Your task to perform on an android device: Open notification settings Image 0: 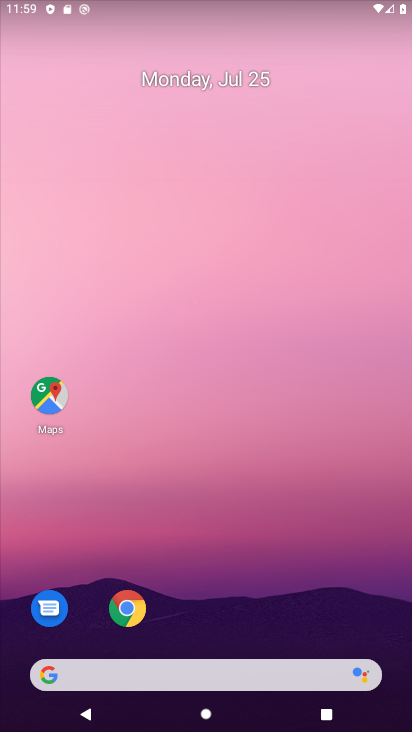
Step 0: drag from (251, 625) to (282, 186)
Your task to perform on an android device: Open notification settings Image 1: 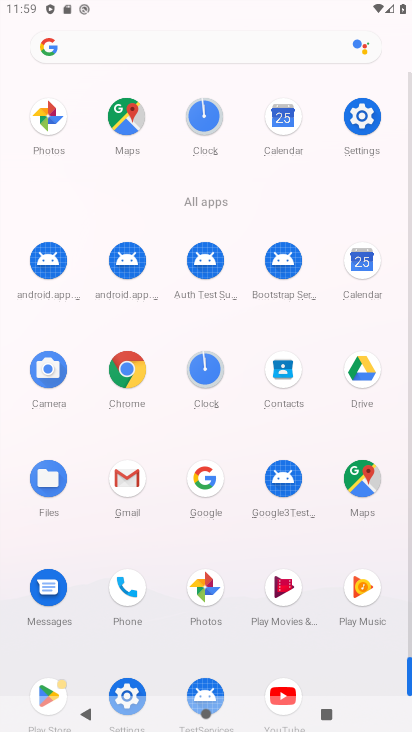
Step 1: click (134, 681)
Your task to perform on an android device: Open notification settings Image 2: 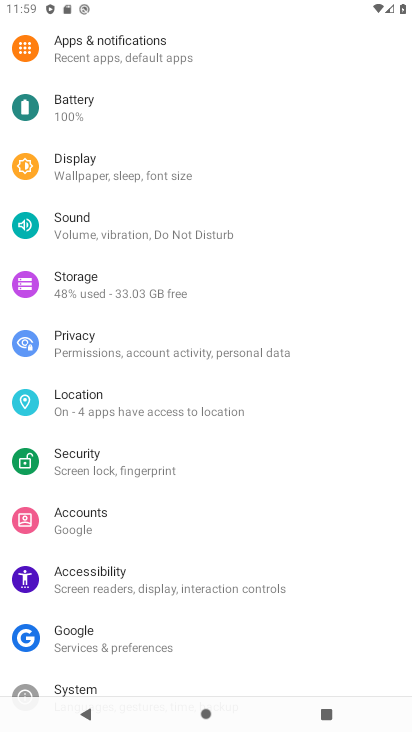
Step 2: click (148, 58)
Your task to perform on an android device: Open notification settings Image 3: 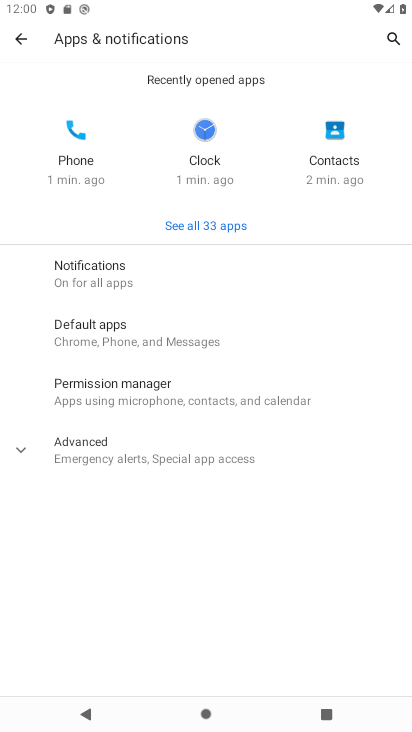
Step 3: click (107, 270)
Your task to perform on an android device: Open notification settings Image 4: 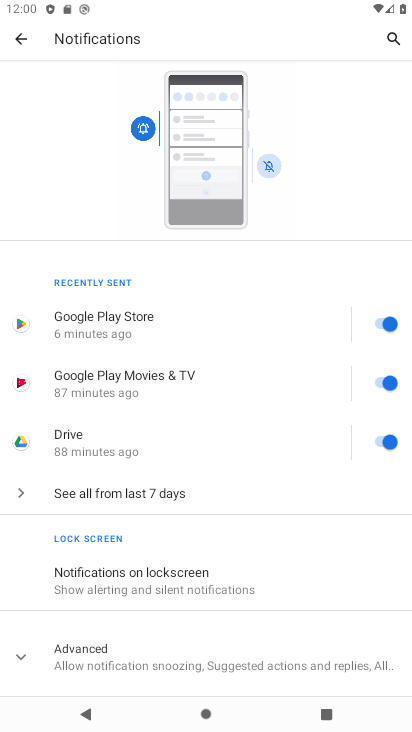
Step 4: click (87, 267)
Your task to perform on an android device: Open notification settings Image 5: 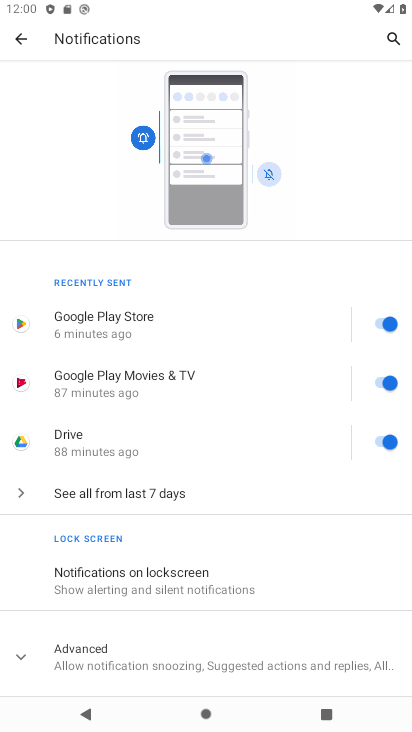
Step 5: drag from (87, 540) to (131, 348)
Your task to perform on an android device: Open notification settings Image 6: 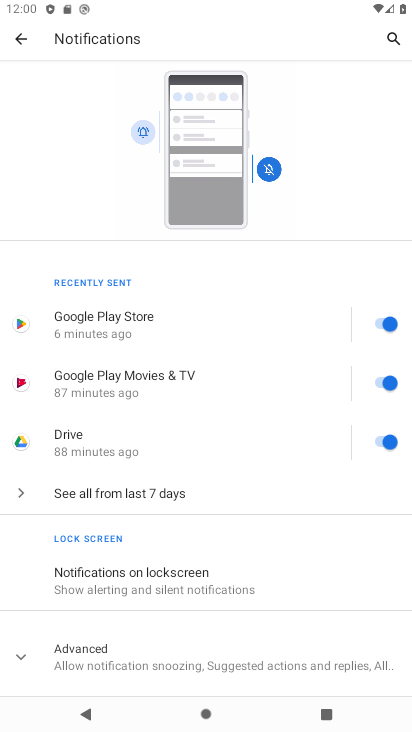
Step 6: click (122, 491)
Your task to perform on an android device: Open notification settings Image 7: 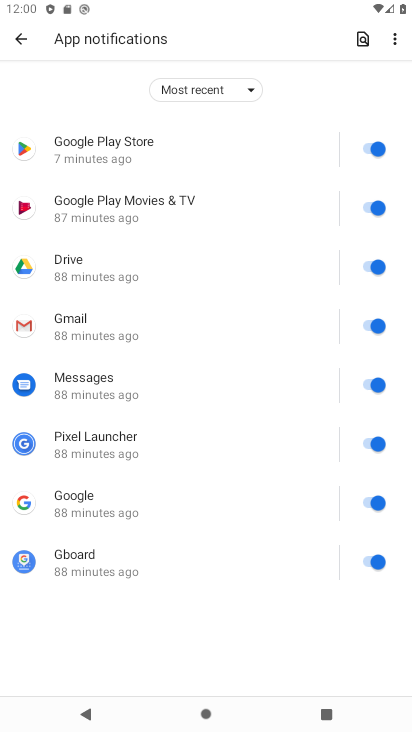
Step 7: click (356, 145)
Your task to perform on an android device: Open notification settings Image 8: 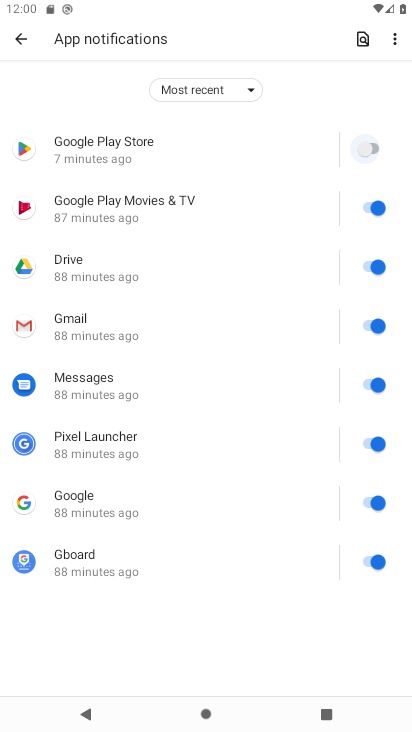
Step 8: click (352, 205)
Your task to perform on an android device: Open notification settings Image 9: 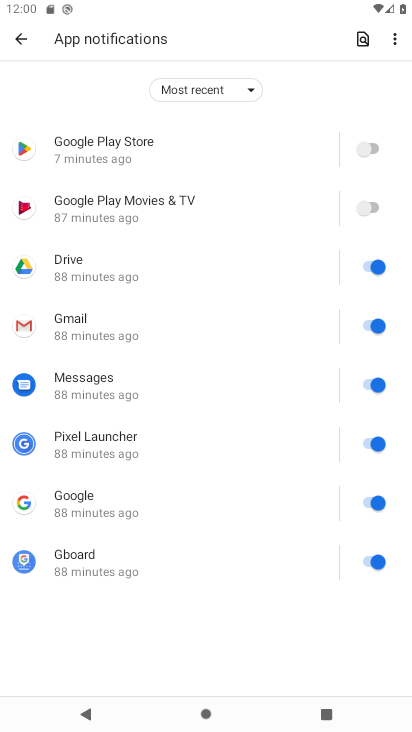
Step 9: click (351, 263)
Your task to perform on an android device: Open notification settings Image 10: 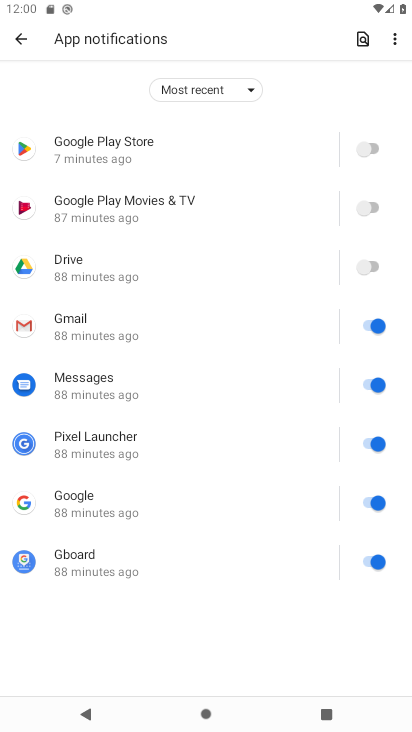
Step 10: click (355, 328)
Your task to perform on an android device: Open notification settings Image 11: 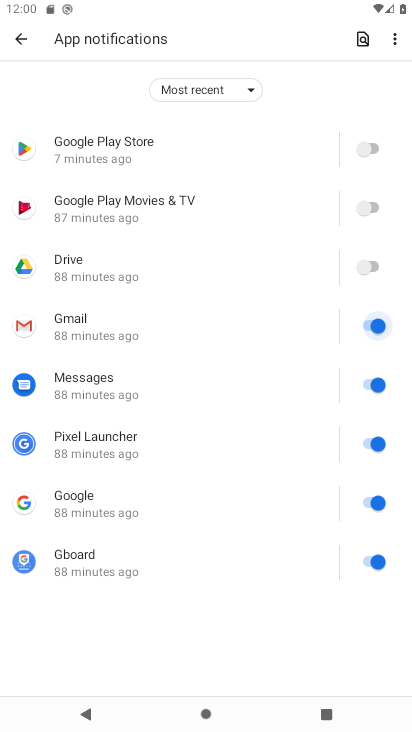
Step 11: click (360, 403)
Your task to perform on an android device: Open notification settings Image 12: 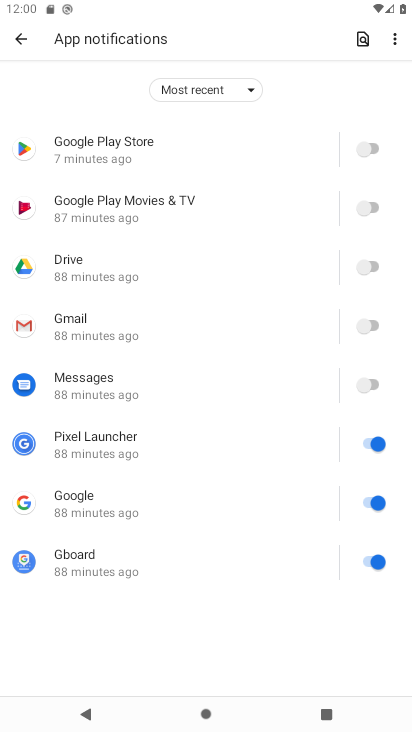
Step 12: click (357, 447)
Your task to perform on an android device: Open notification settings Image 13: 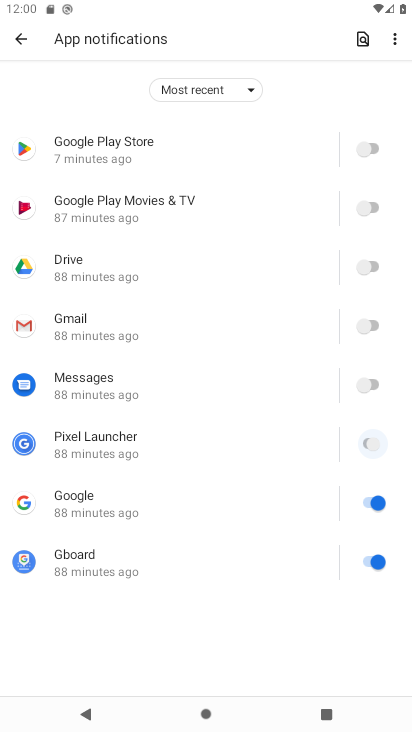
Step 13: click (358, 497)
Your task to perform on an android device: Open notification settings Image 14: 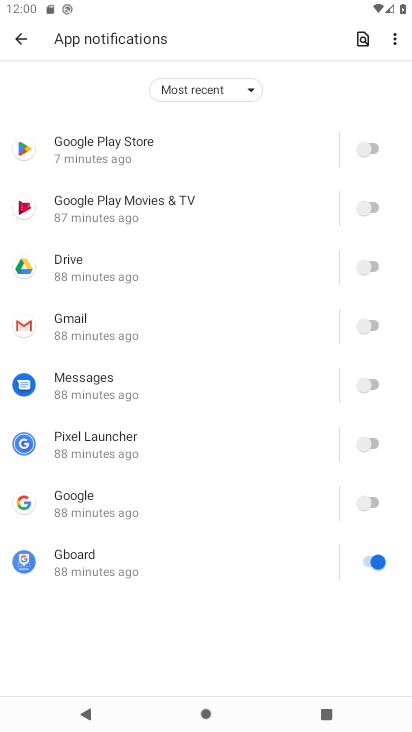
Step 14: click (369, 564)
Your task to perform on an android device: Open notification settings Image 15: 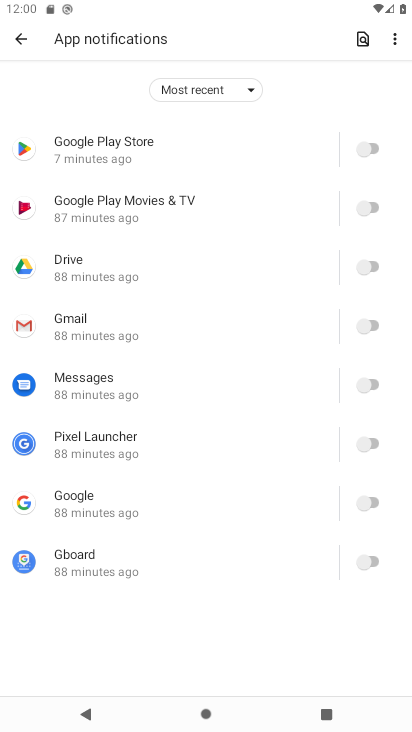
Step 15: task complete